Your task to perform on an android device: Open Google Maps and go to "Timeline" Image 0: 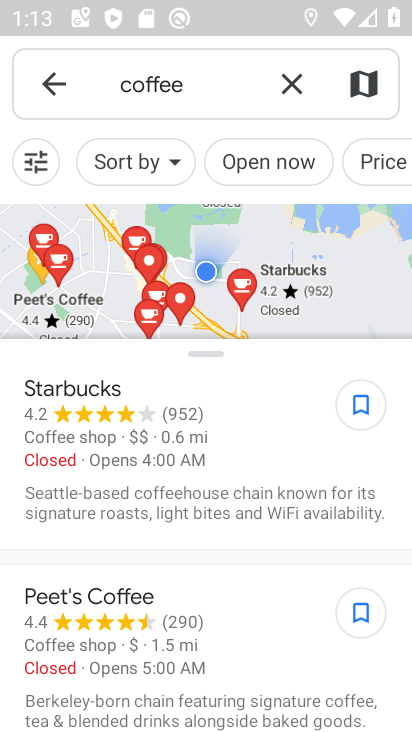
Step 0: press home button
Your task to perform on an android device: Open Google Maps and go to "Timeline" Image 1: 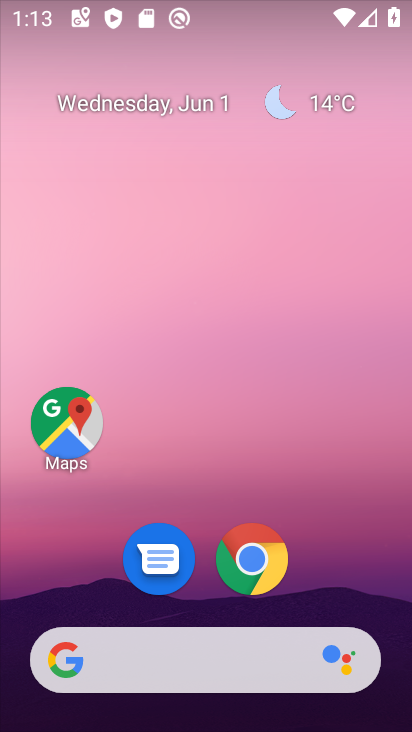
Step 1: click (46, 435)
Your task to perform on an android device: Open Google Maps and go to "Timeline" Image 2: 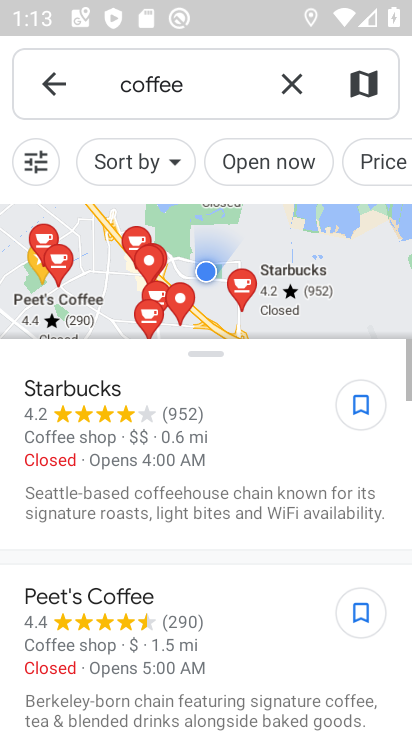
Step 2: click (289, 74)
Your task to perform on an android device: Open Google Maps and go to "Timeline" Image 3: 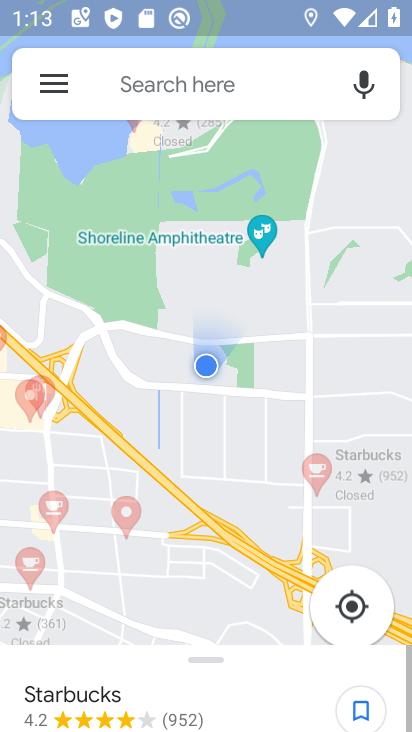
Step 3: click (47, 90)
Your task to perform on an android device: Open Google Maps and go to "Timeline" Image 4: 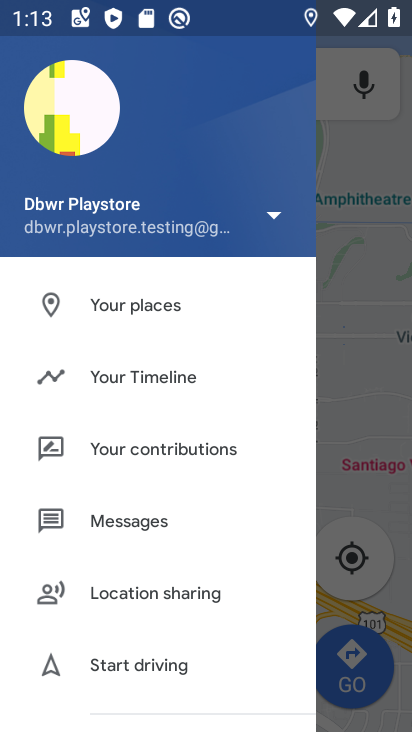
Step 4: click (371, 360)
Your task to perform on an android device: Open Google Maps and go to "Timeline" Image 5: 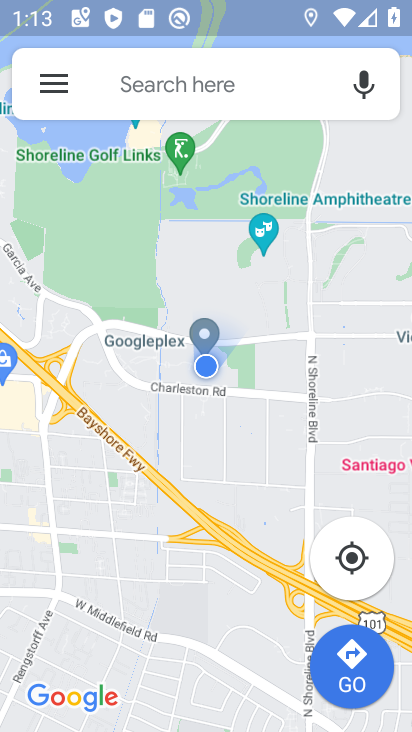
Step 5: task complete